Your task to perform on an android device: open app "Google Play Games" Image 0: 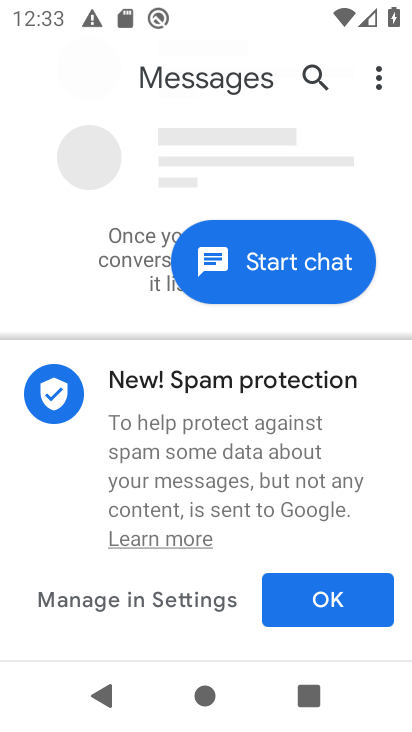
Step 0: press home button
Your task to perform on an android device: open app "Google Play Games" Image 1: 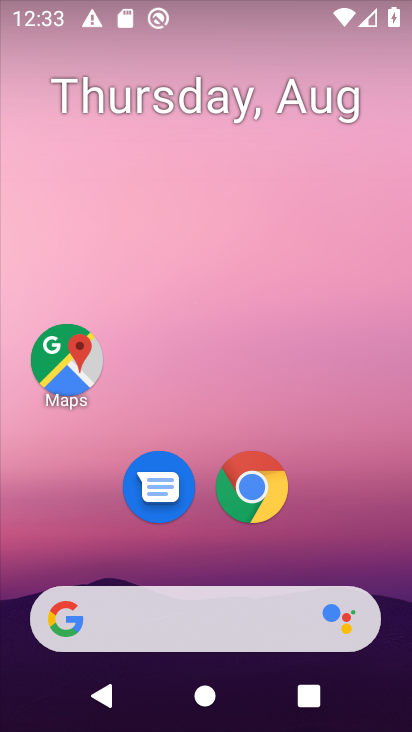
Step 1: drag from (209, 568) to (227, 19)
Your task to perform on an android device: open app "Google Play Games" Image 2: 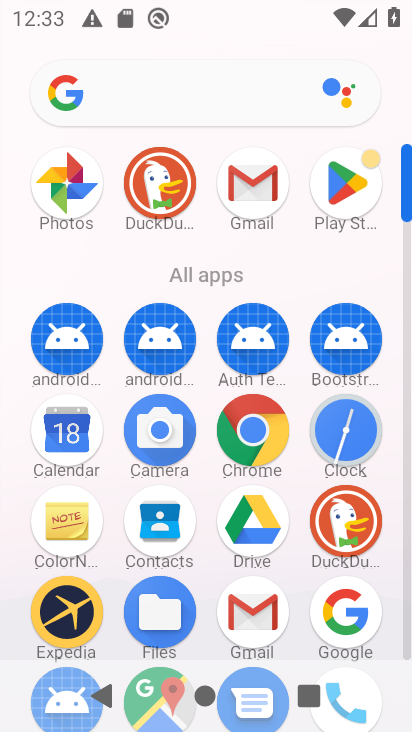
Step 2: click (339, 176)
Your task to perform on an android device: open app "Google Play Games" Image 3: 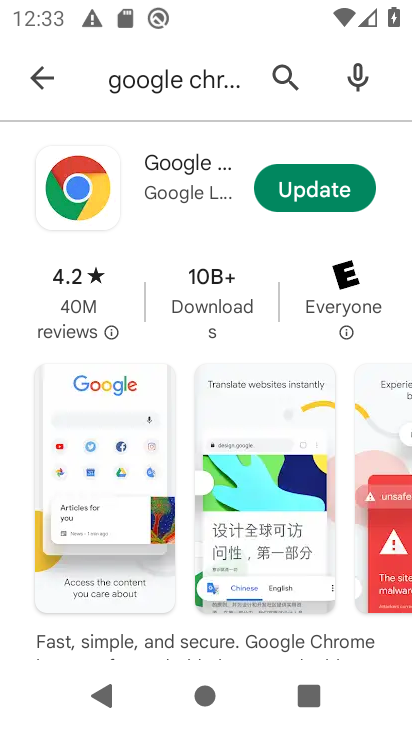
Step 3: click (284, 69)
Your task to perform on an android device: open app "Google Play Games" Image 4: 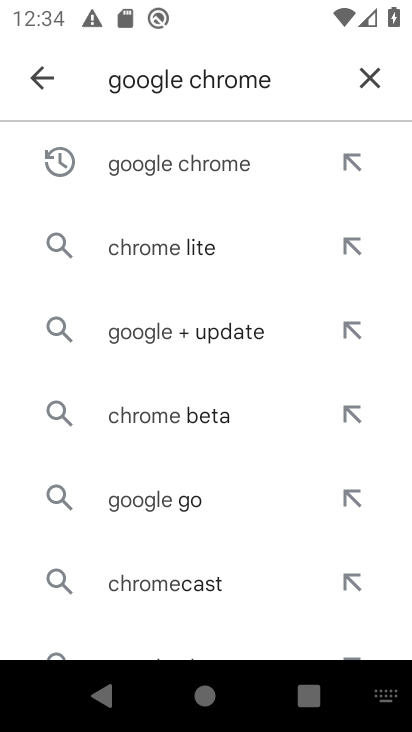
Step 4: click (208, 160)
Your task to perform on an android device: open app "Google Play Games" Image 5: 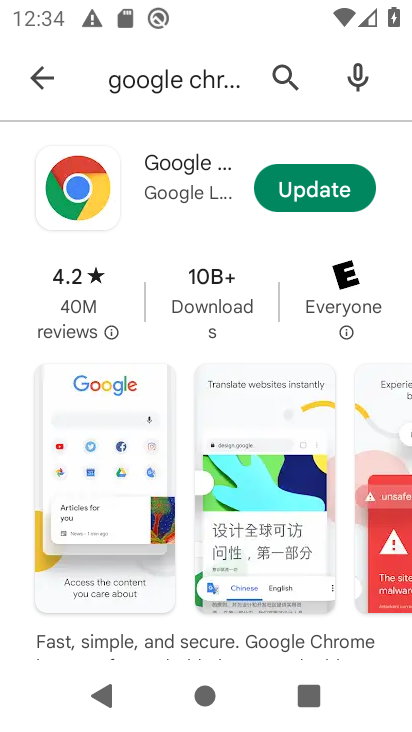
Step 5: click (272, 67)
Your task to perform on an android device: open app "Google Play Games" Image 6: 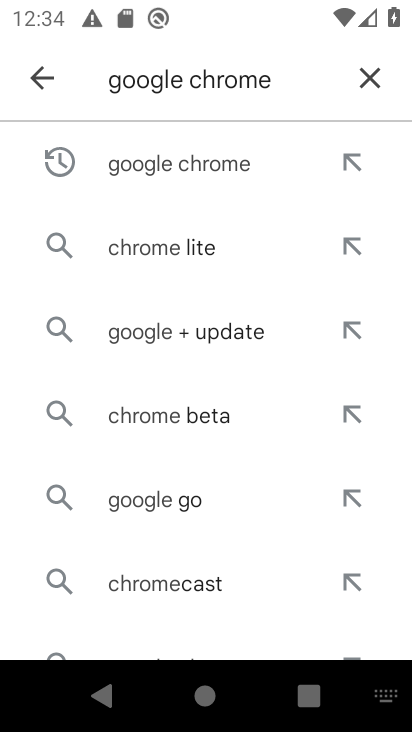
Step 6: click (365, 78)
Your task to perform on an android device: open app "Google Play Games" Image 7: 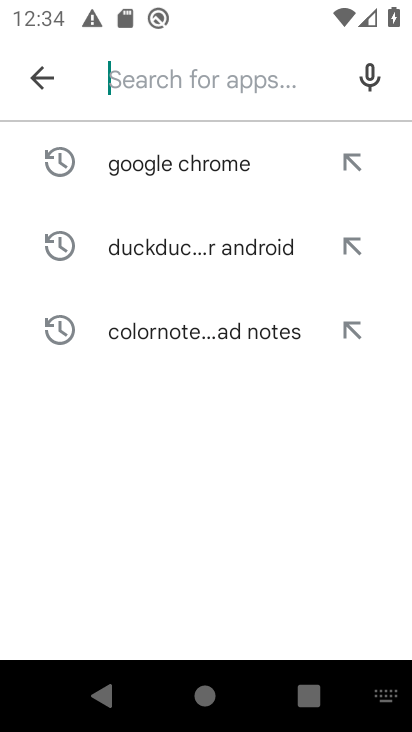
Step 7: type "Google Play Games"
Your task to perform on an android device: open app "Google Play Games" Image 8: 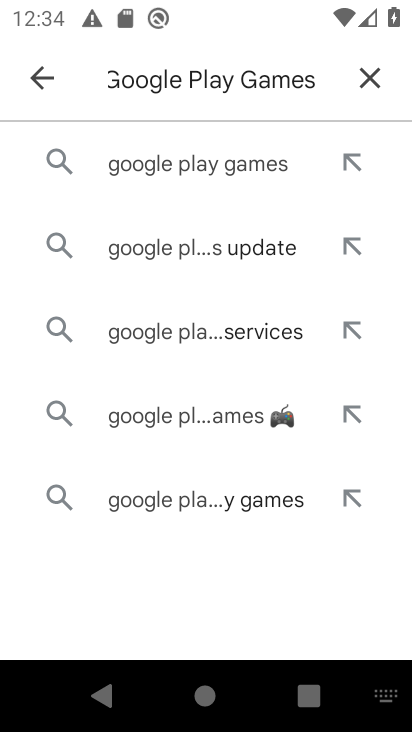
Step 8: click (207, 165)
Your task to perform on an android device: open app "Google Play Games" Image 9: 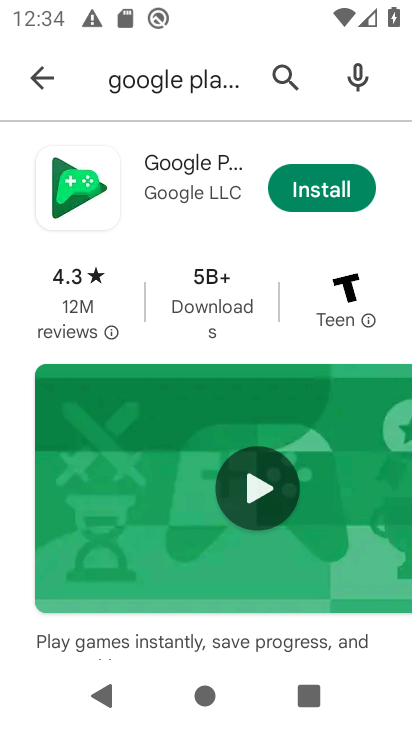
Step 9: task complete